Your task to perform on an android device: check battery use Image 0: 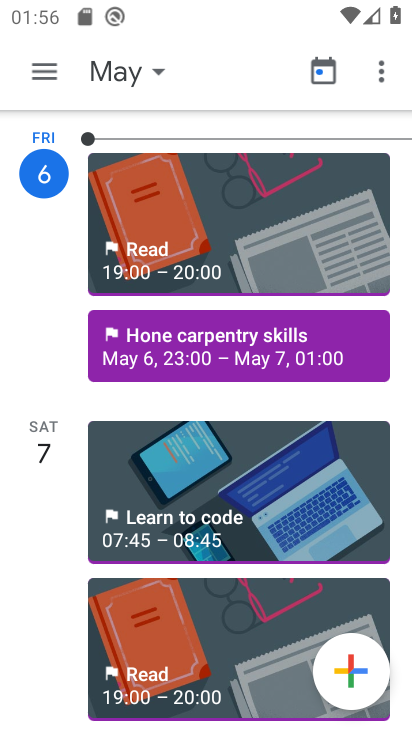
Step 0: press home button
Your task to perform on an android device: check battery use Image 1: 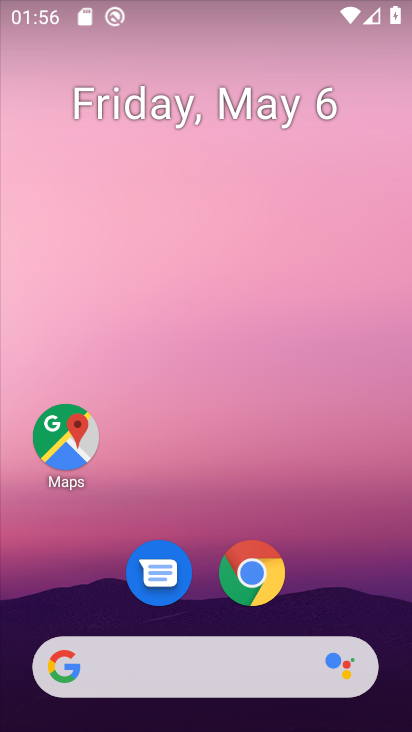
Step 1: drag from (336, 584) to (363, 227)
Your task to perform on an android device: check battery use Image 2: 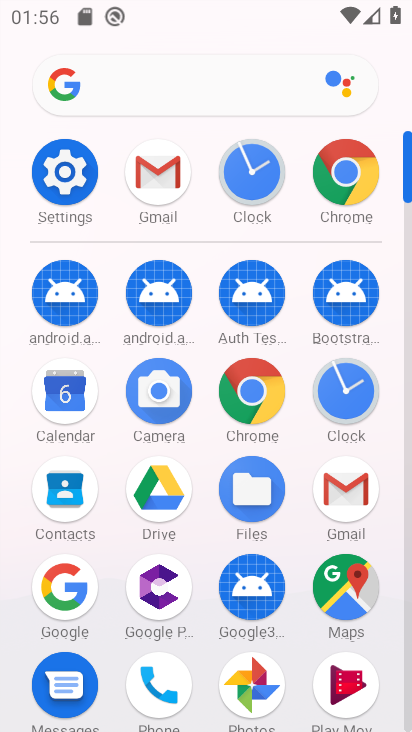
Step 2: click (61, 159)
Your task to perform on an android device: check battery use Image 3: 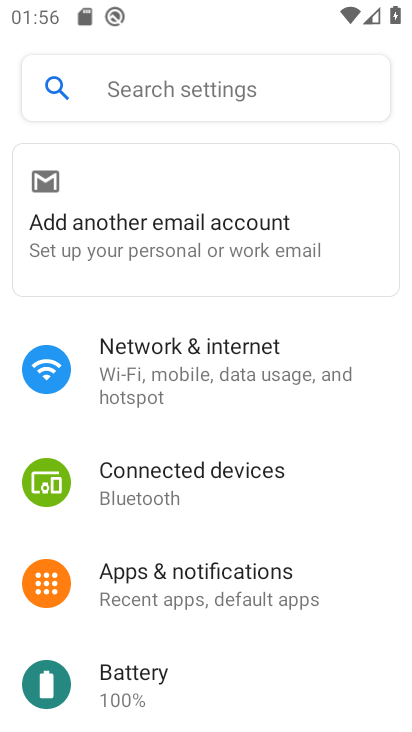
Step 3: click (130, 676)
Your task to perform on an android device: check battery use Image 4: 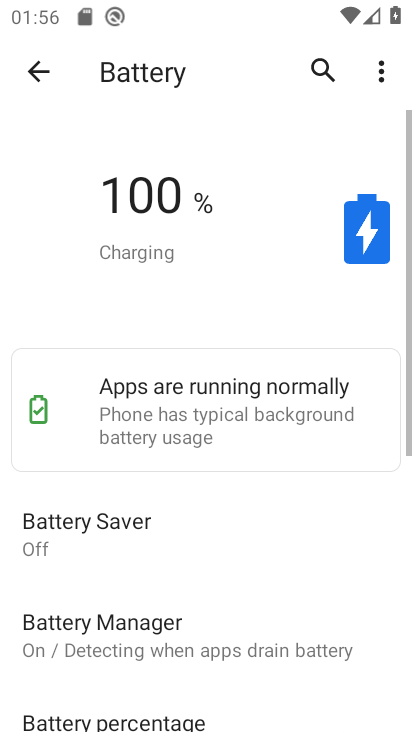
Step 4: drag from (212, 659) to (263, 205)
Your task to perform on an android device: check battery use Image 5: 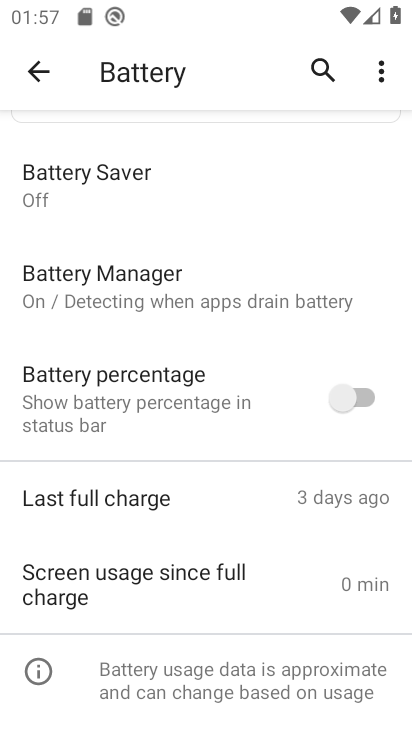
Step 5: drag from (217, 703) to (286, 430)
Your task to perform on an android device: check battery use Image 6: 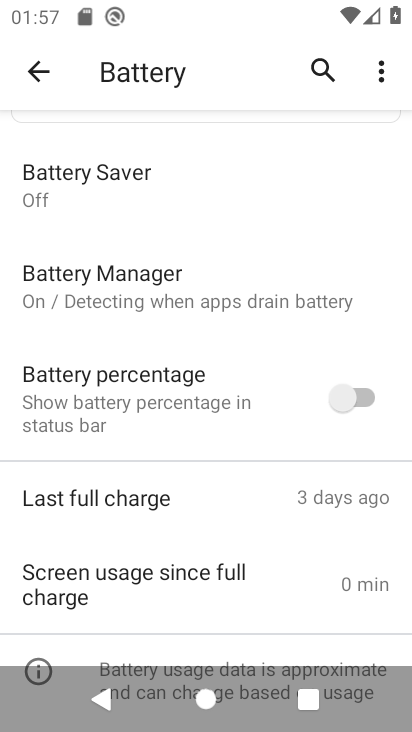
Step 6: click (280, 341)
Your task to perform on an android device: check battery use Image 7: 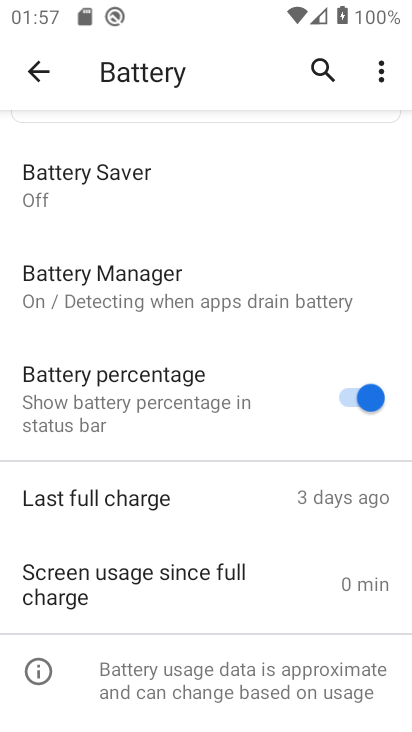
Step 7: click (362, 385)
Your task to perform on an android device: check battery use Image 8: 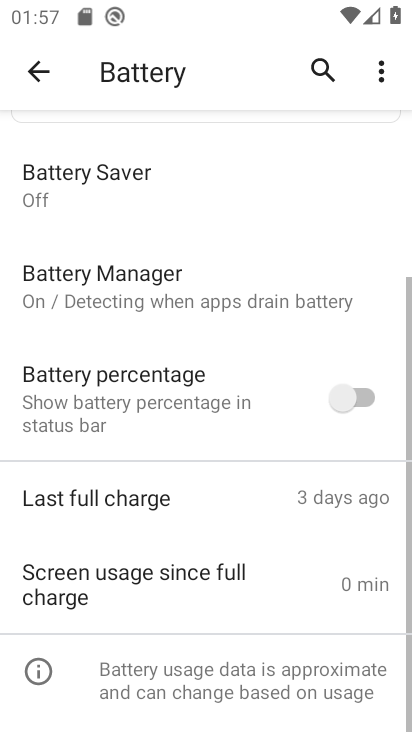
Step 8: drag from (262, 205) to (241, 346)
Your task to perform on an android device: check battery use Image 9: 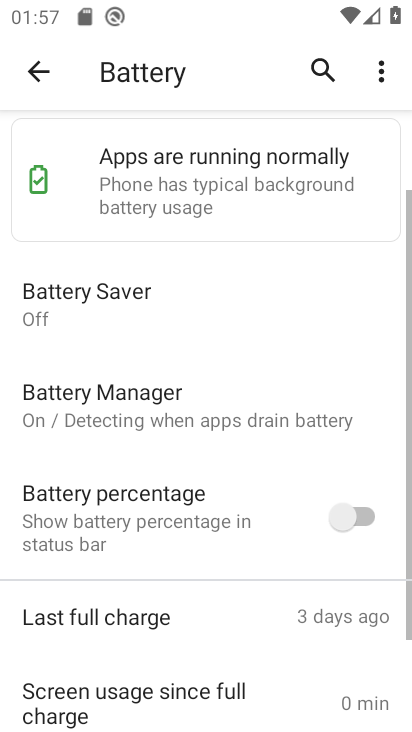
Step 9: click (191, 396)
Your task to perform on an android device: check battery use Image 10: 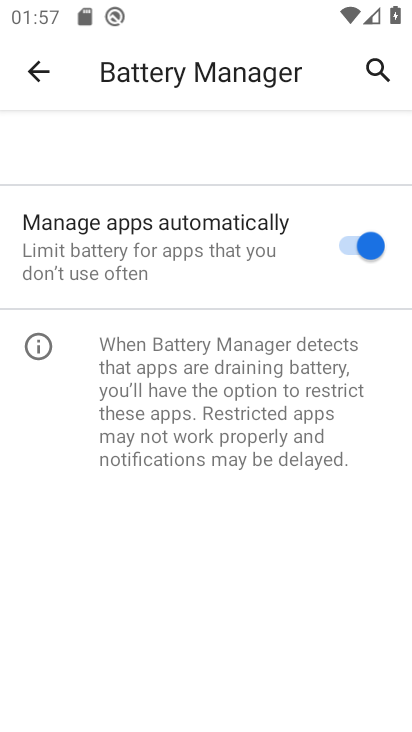
Step 10: drag from (193, 240) to (187, 561)
Your task to perform on an android device: check battery use Image 11: 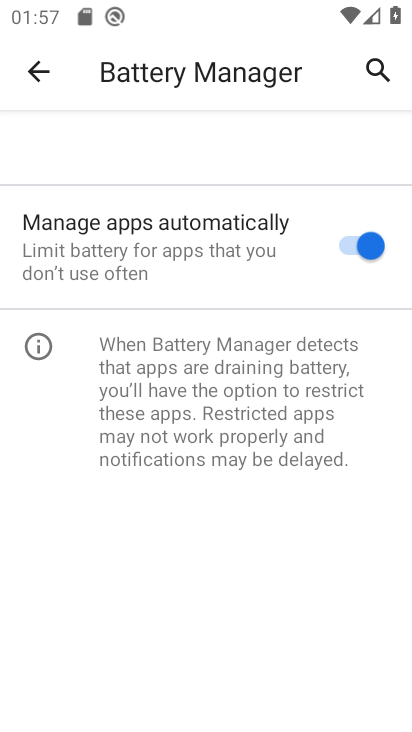
Step 11: click (25, 73)
Your task to perform on an android device: check battery use Image 12: 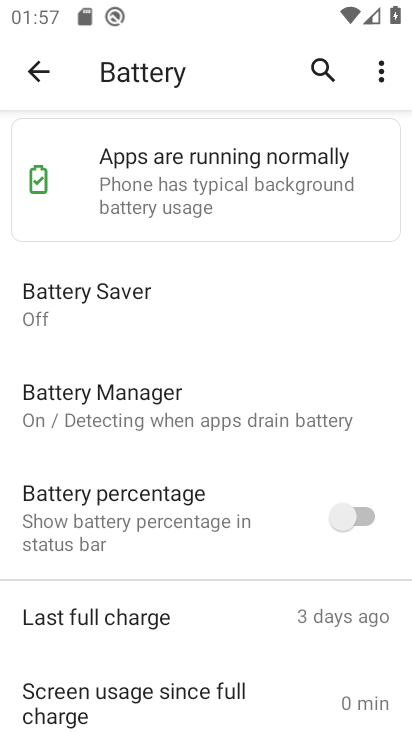
Step 12: click (171, 385)
Your task to perform on an android device: check battery use Image 13: 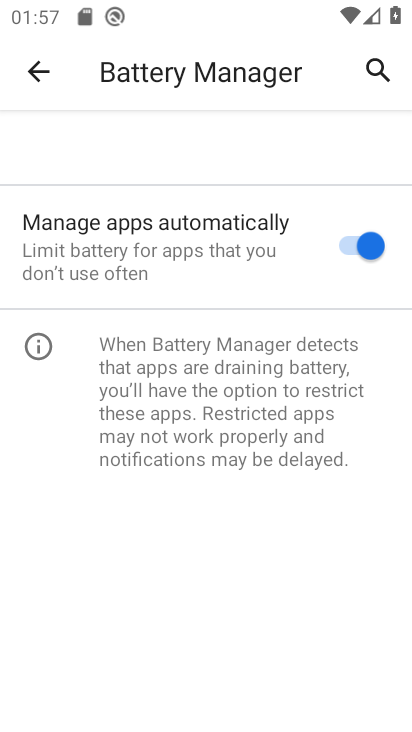
Step 13: click (41, 66)
Your task to perform on an android device: check battery use Image 14: 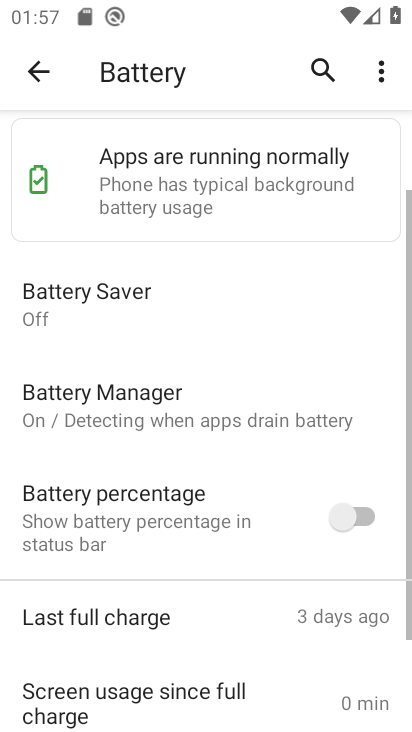
Step 14: click (199, 208)
Your task to perform on an android device: check battery use Image 15: 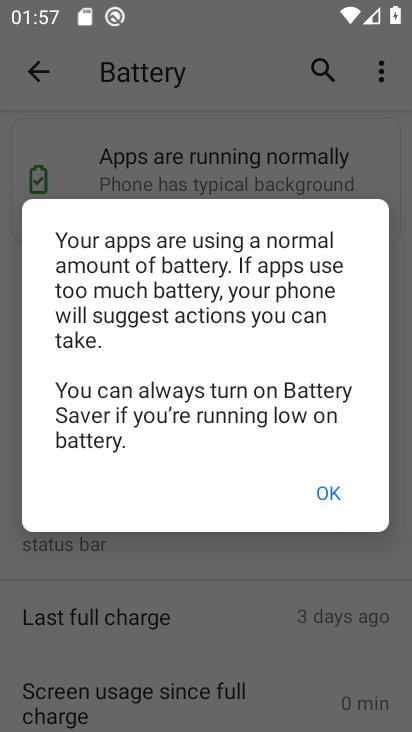
Step 15: click (322, 498)
Your task to perform on an android device: check battery use Image 16: 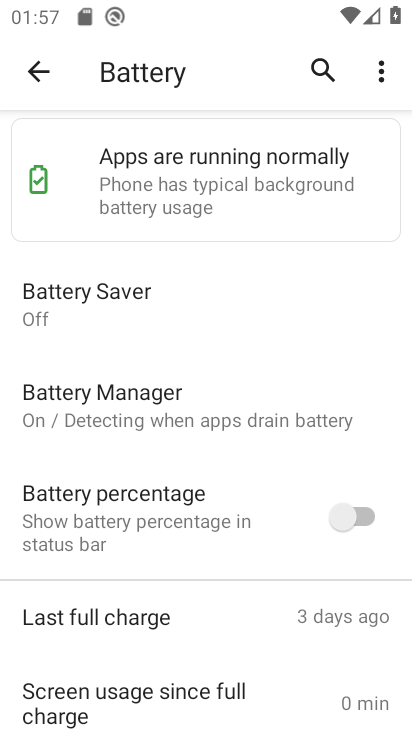
Step 16: drag from (234, 601) to (272, 372)
Your task to perform on an android device: check battery use Image 17: 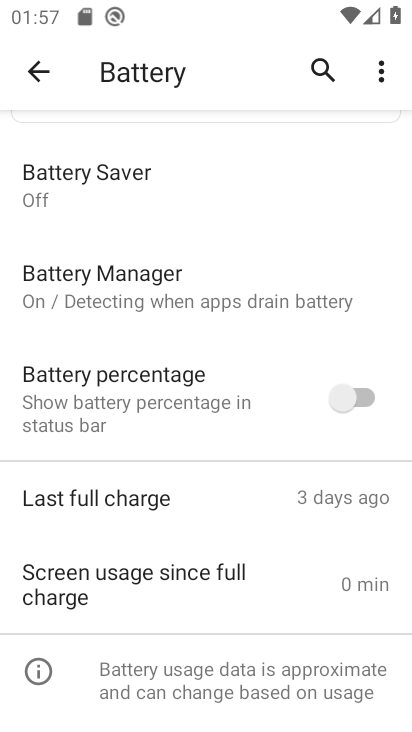
Step 17: drag from (204, 235) to (161, 693)
Your task to perform on an android device: check battery use Image 18: 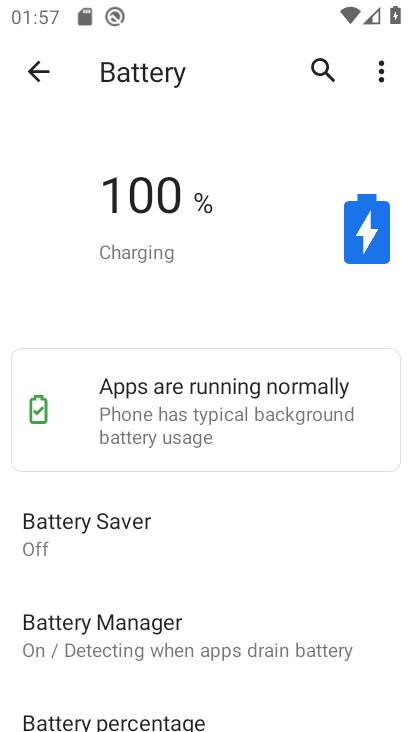
Step 18: drag from (179, 551) to (219, 418)
Your task to perform on an android device: check battery use Image 19: 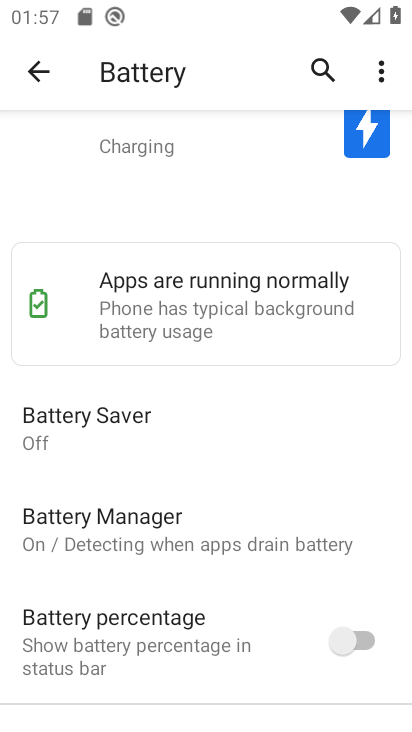
Step 19: click (254, 318)
Your task to perform on an android device: check battery use Image 20: 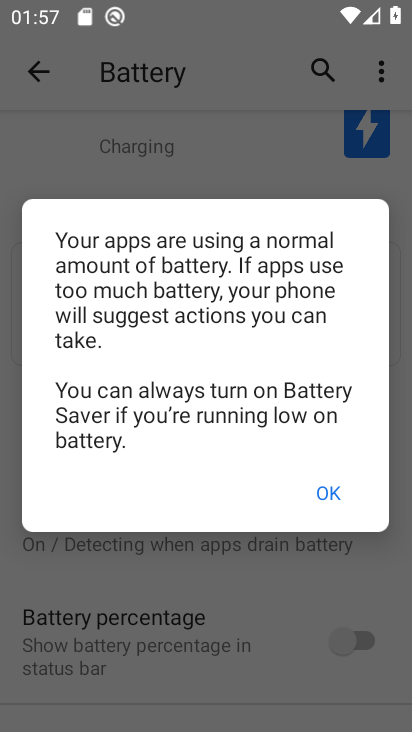
Step 20: click (320, 506)
Your task to perform on an android device: check battery use Image 21: 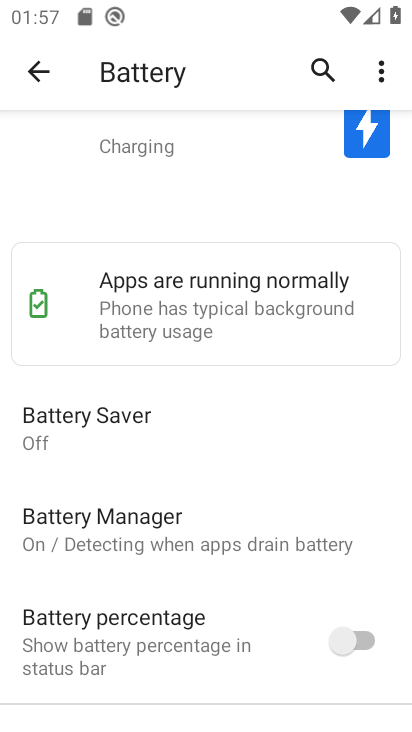
Step 21: task complete